Your task to perform on an android device: toggle priority inbox in the gmail app Image 0: 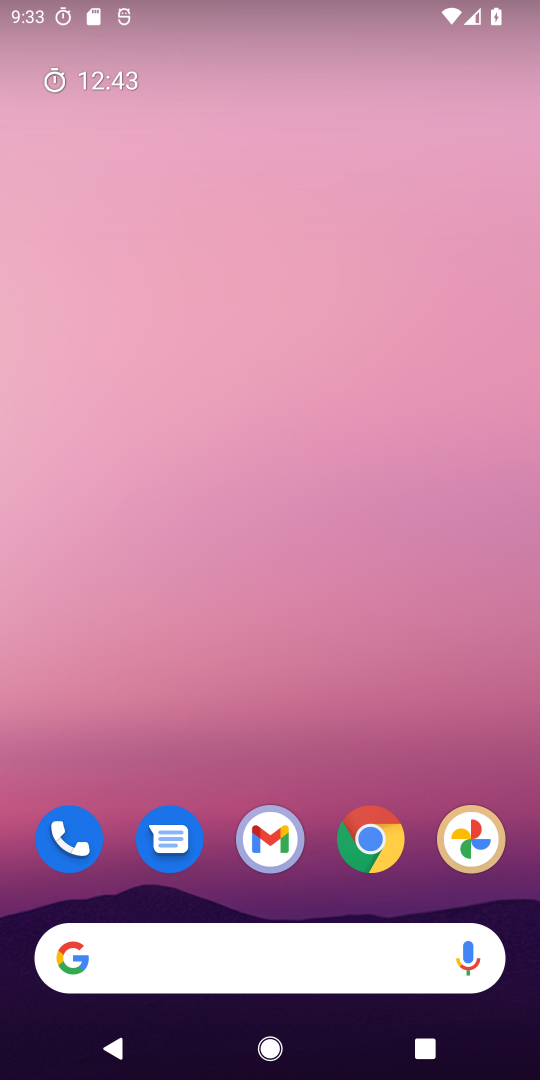
Step 0: click (261, 828)
Your task to perform on an android device: toggle priority inbox in the gmail app Image 1: 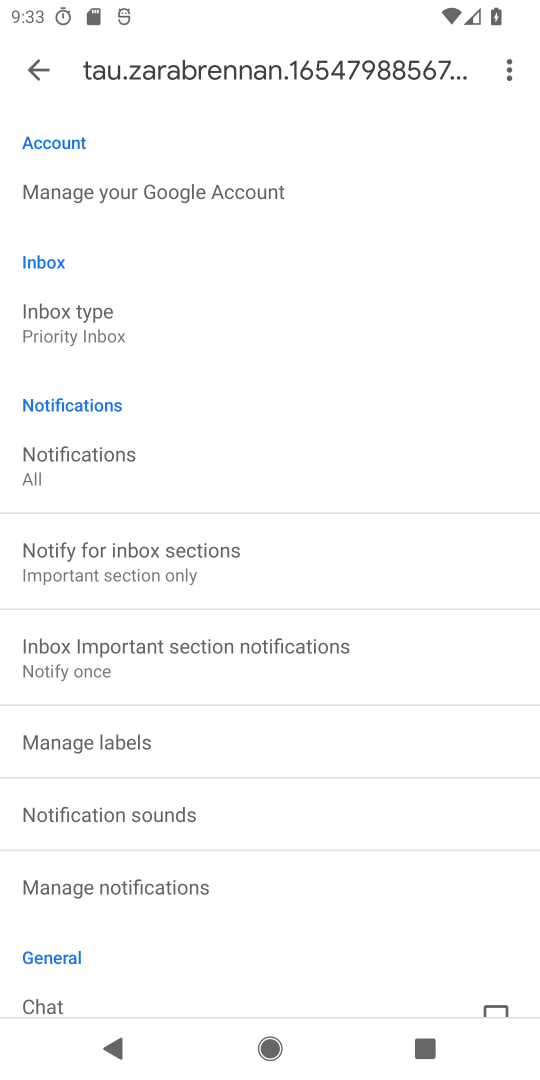
Step 1: task complete